Your task to perform on an android device: stop showing notifications on the lock screen Image 0: 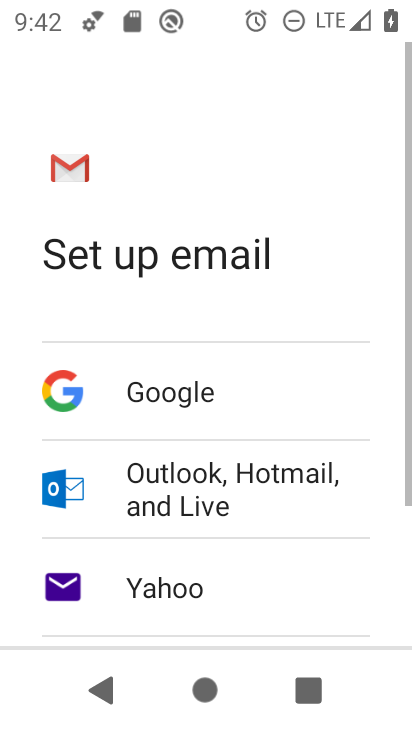
Step 0: press home button
Your task to perform on an android device: stop showing notifications on the lock screen Image 1: 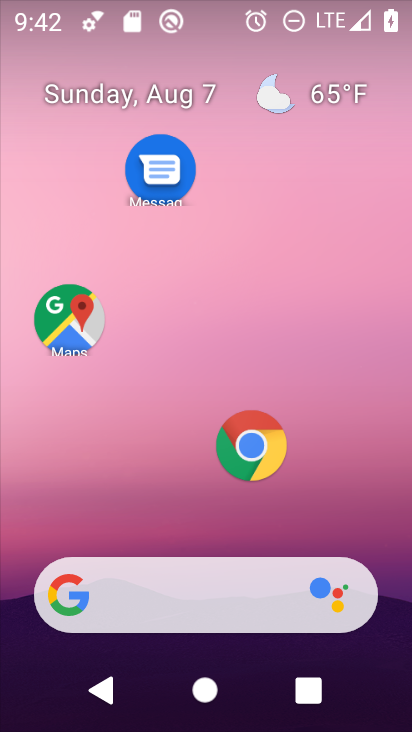
Step 1: drag from (197, 540) to (188, 47)
Your task to perform on an android device: stop showing notifications on the lock screen Image 2: 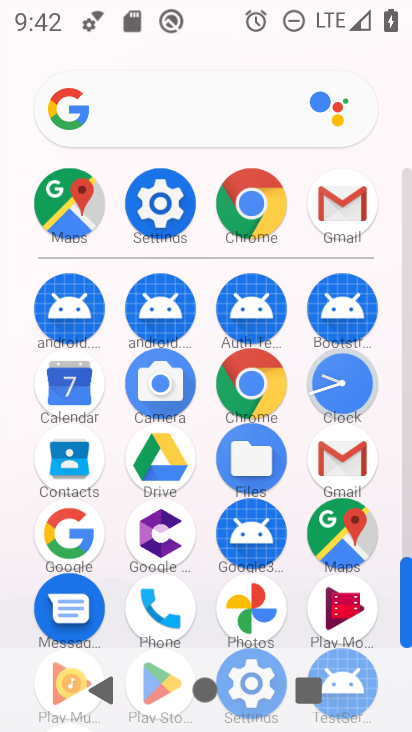
Step 2: click (156, 195)
Your task to perform on an android device: stop showing notifications on the lock screen Image 3: 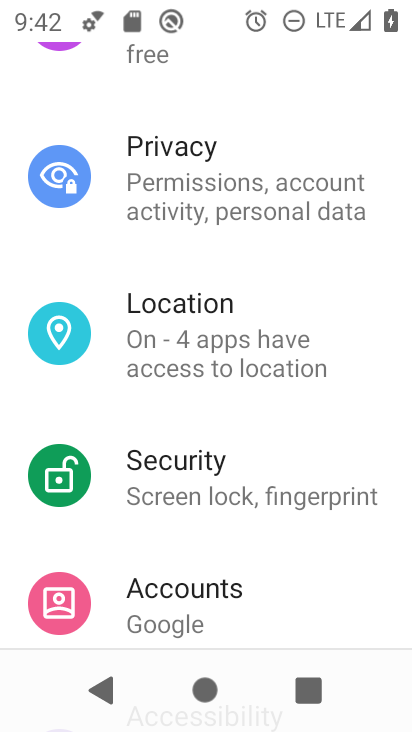
Step 3: drag from (207, 88) to (202, 712)
Your task to perform on an android device: stop showing notifications on the lock screen Image 4: 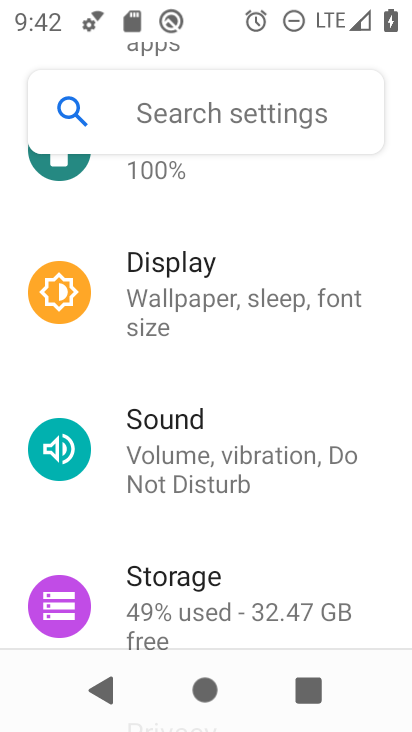
Step 4: drag from (231, 188) to (226, 723)
Your task to perform on an android device: stop showing notifications on the lock screen Image 5: 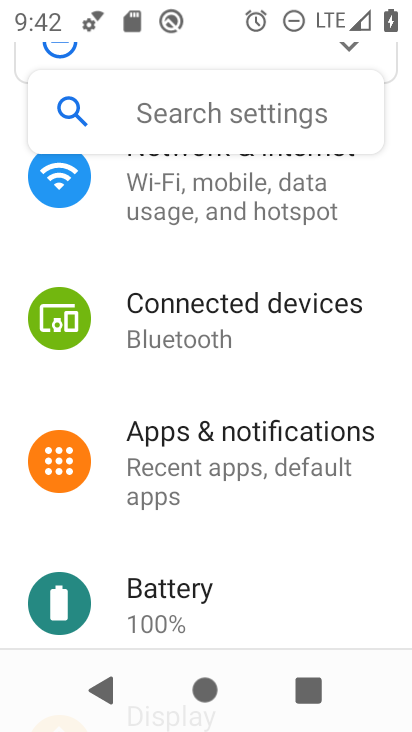
Step 5: click (194, 485)
Your task to perform on an android device: stop showing notifications on the lock screen Image 6: 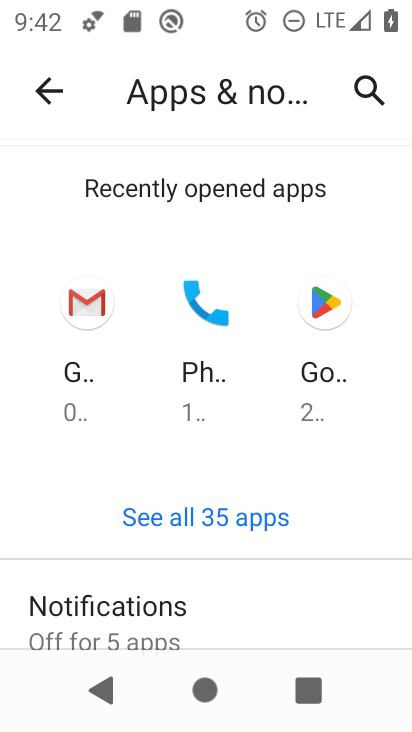
Step 6: click (217, 610)
Your task to perform on an android device: stop showing notifications on the lock screen Image 7: 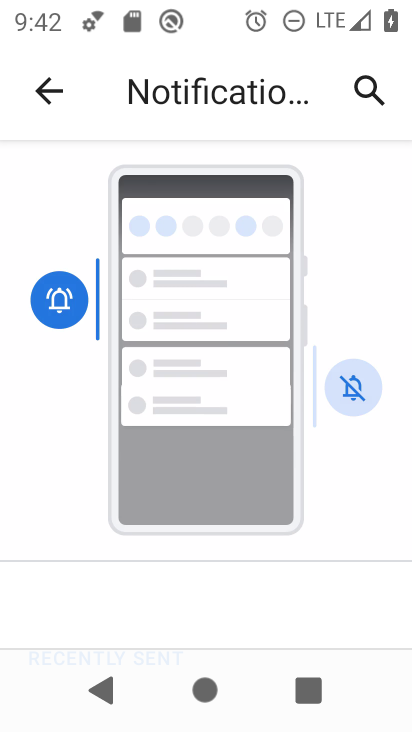
Step 7: drag from (196, 584) to (211, 183)
Your task to perform on an android device: stop showing notifications on the lock screen Image 8: 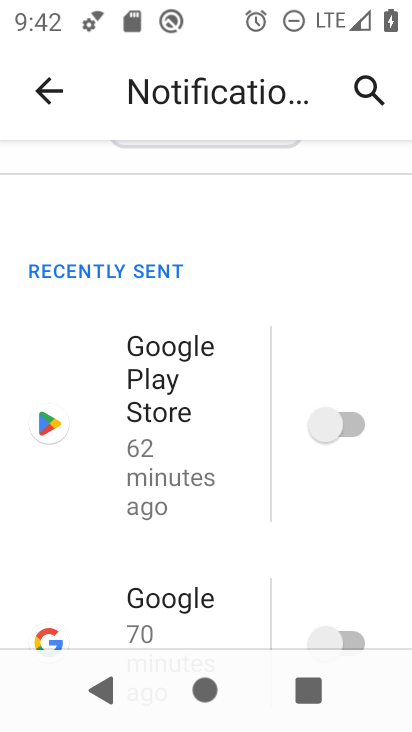
Step 8: drag from (233, 622) to (254, 116)
Your task to perform on an android device: stop showing notifications on the lock screen Image 9: 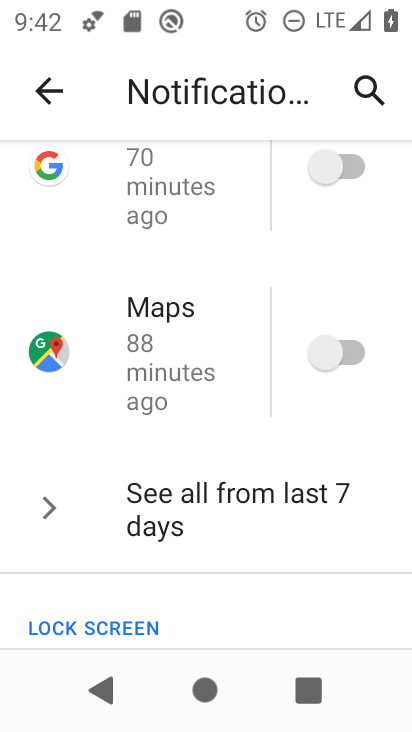
Step 9: drag from (230, 615) to (248, 117)
Your task to perform on an android device: stop showing notifications on the lock screen Image 10: 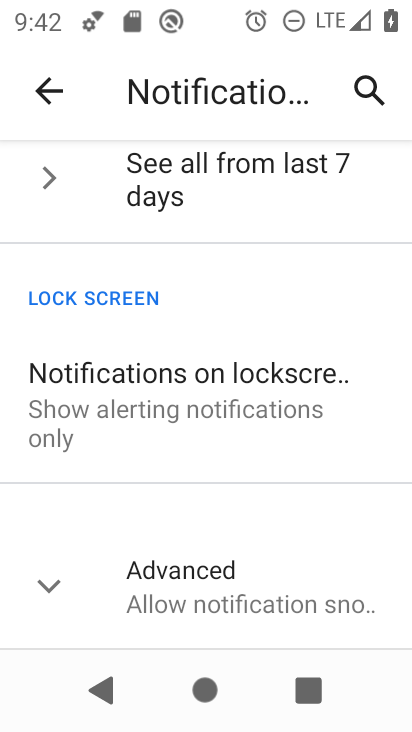
Step 10: click (170, 434)
Your task to perform on an android device: stop showing notifications on the lock screen Image 11: 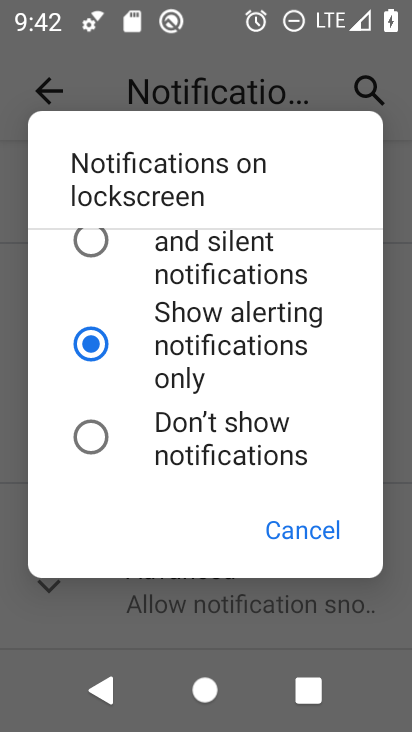
Step 11: click (98, 431)
Your task to perform on an android device: stop showing notifications on the lock screen Image 12: 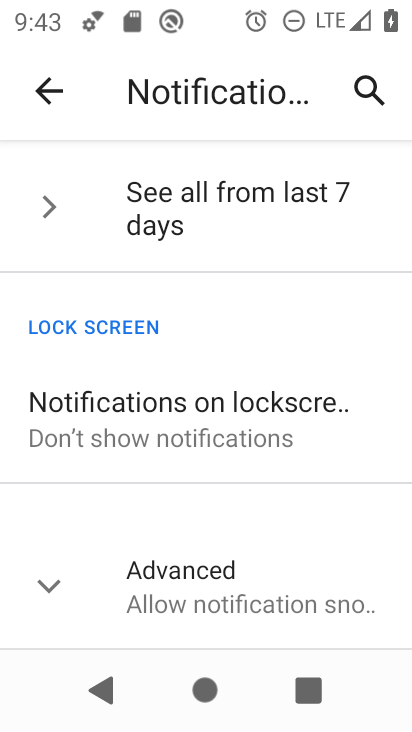
Step 12: task complete